Your task to perform on an android device: Go to CNN.com Image 0: 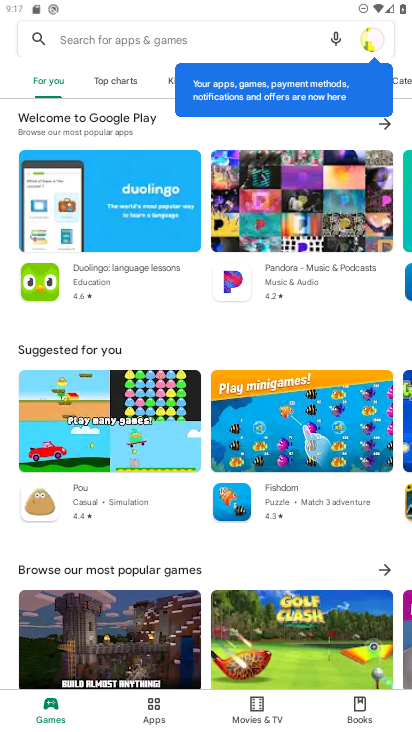
Step 0: press home button
Your task to perform on an android device: Go to CNN.com Image 1: 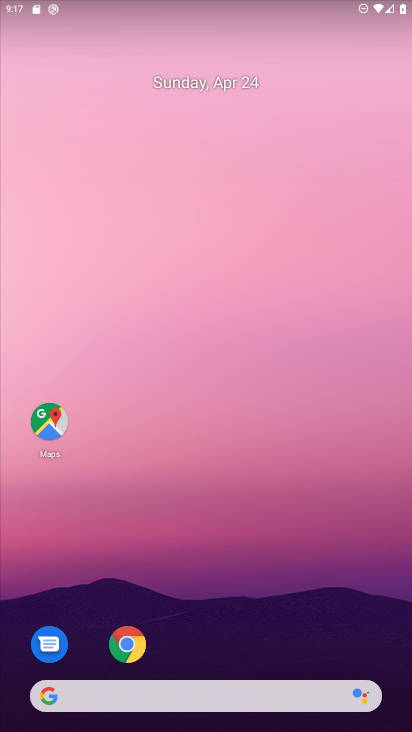
Step 1: drag from (230, 668) to (202, 106)
Your task to perform on an android device: Go to CNN.com Image 2: 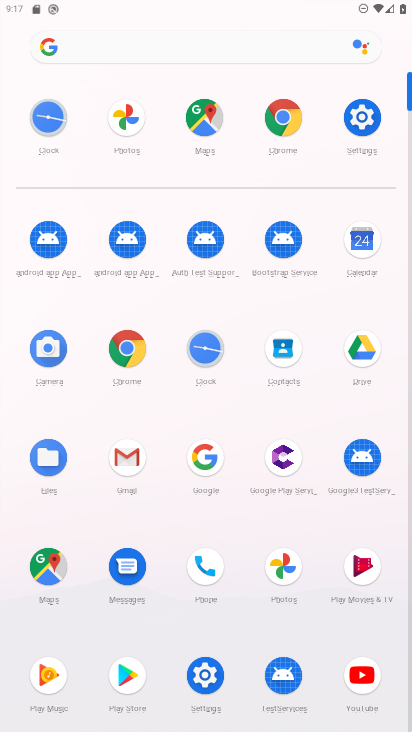
Step 2: click (284, 130)
Your task to perform on an android device: Go to CNN.com Image 3: 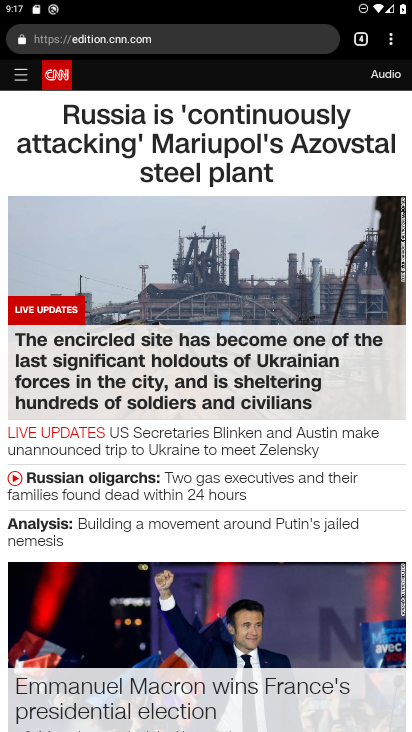
Step 3: task complete